Your task to perform on an android device: turn on translation in the chrome app Image 0: 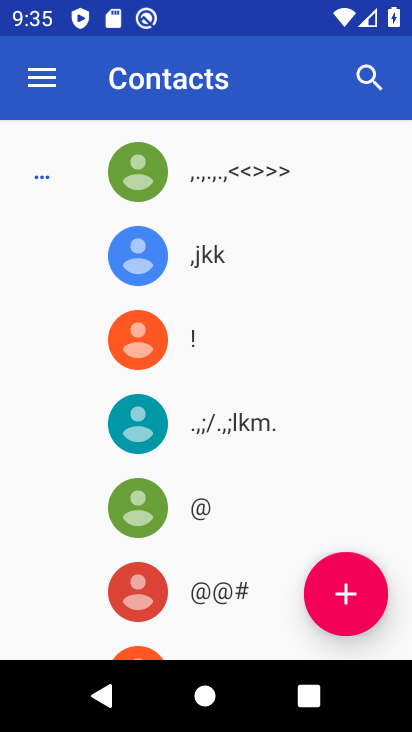
Step 0: press home button
Your task to perform on an android device: turn on translation in the chrome app Image 1: 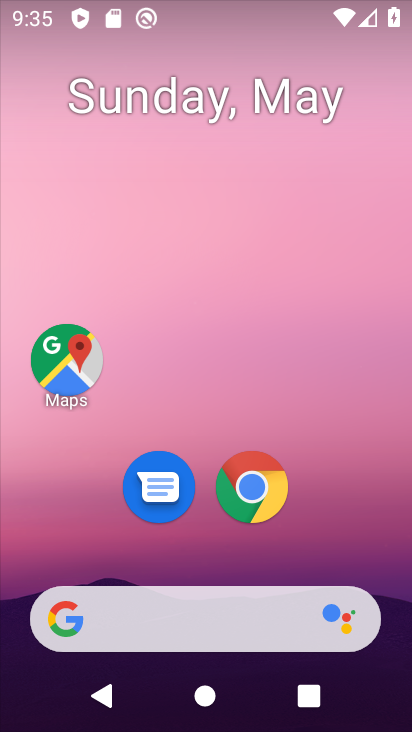
Step 1: drag from (378, 546) to (381, 114)
Your task to perform on an android device: turn on translation in the chrome app Image 2: 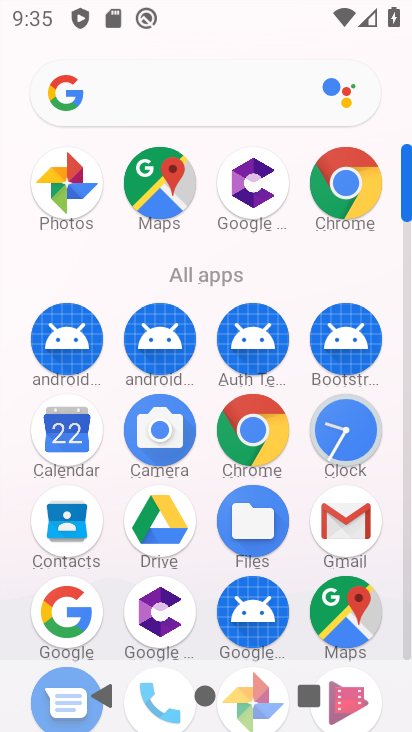
Step 2: click (337, 178)
Your task to perform on an android device: turn on translation in the chrome app Image 3: 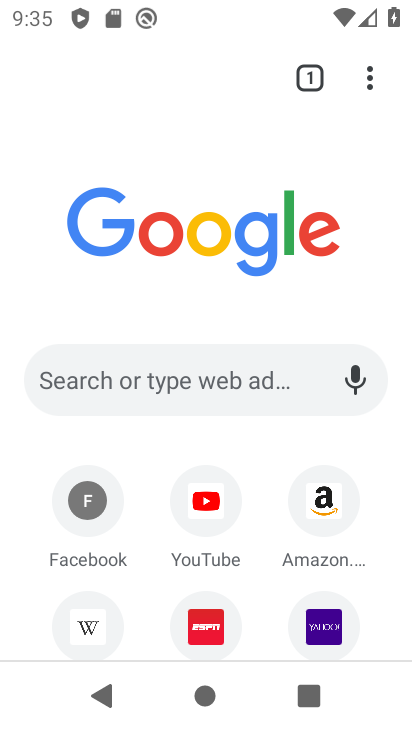
Step 3: click (370, 84)
Your task to perform on an android device: turn on translation in the chrome app Image 4: 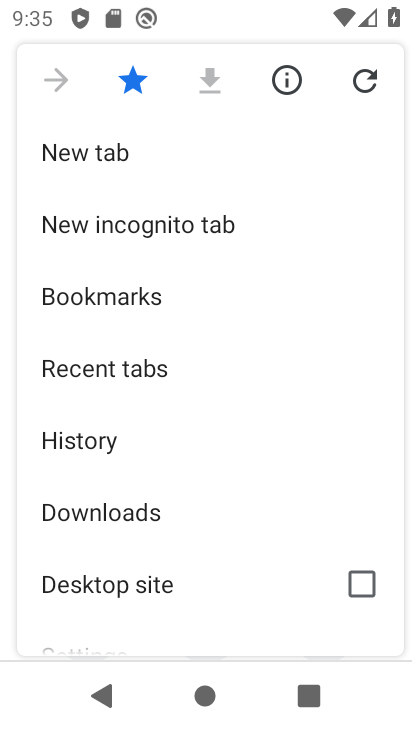
Step 4: drag from (265, 472) to (295, 316)
Your task to perform on an android device: turn on translation in the chrome app Image 5: 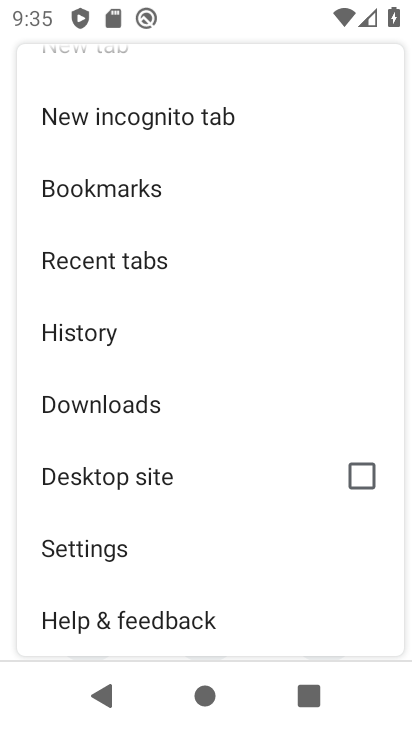
Step 5: click (111, 553)
Your task to perform on an android device: turn on translation in the chrome app Image 6: 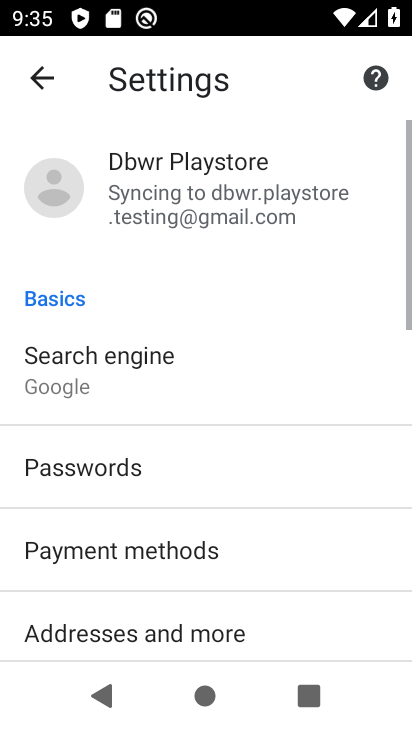
Step 6: drag from (265, 561) to (288, 419)
Your task to perform on an android device: turn on translation in the chrome app Image 7: 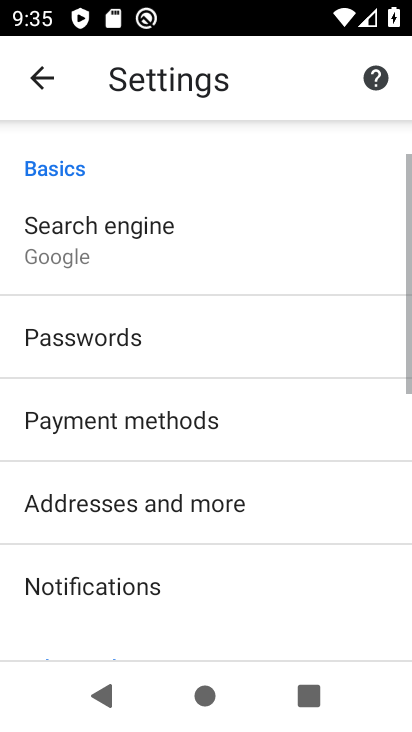
Step 7: drag from (272, 556) to (270, 427)
Your task to perform on an android device: turn on translation in the chrome app Image 8: 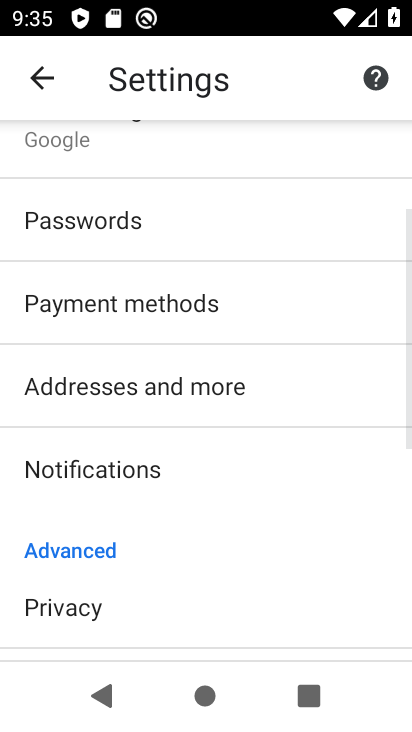
Step 8: drag from (244, 552) to (253, 451)
Your task to perform on an android device: turn on translation in the chrome app Image 9: 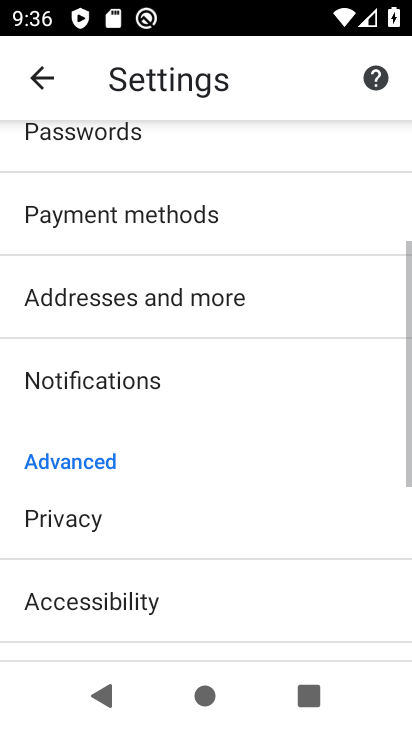
Step 9: drag from (245, 582) to (267, 467)
Your task to perform on an android device: turn on translation in the chrome app Image 10: 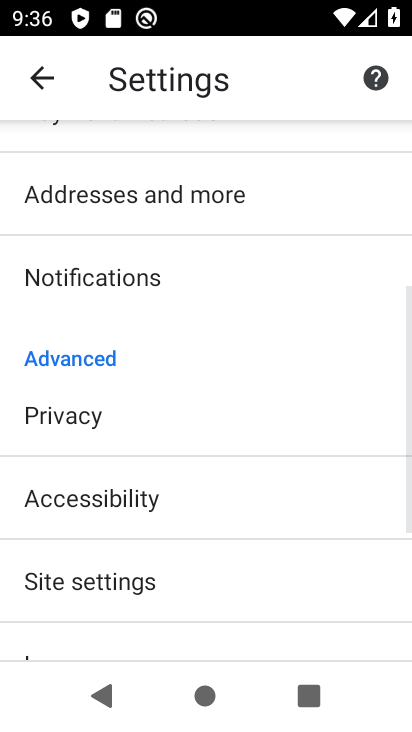
Step 10: drag from (262, 606) to (280, 475)
Your task to perform on an android device: turn on translation in the chrome app Image 11: 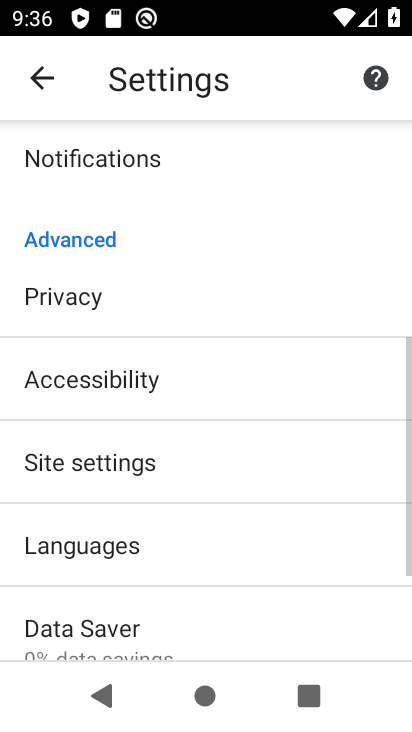
Step 11: drag from (267, 590) to (273, 500)
Your task to perform on an android device: turn on translation in the chrome app Image 12: 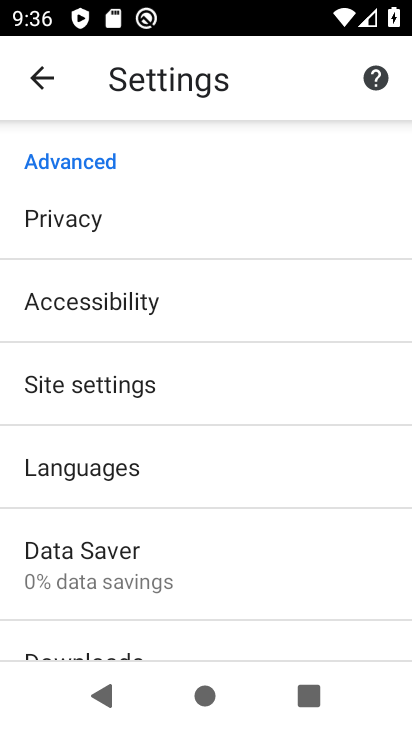
Step 12: click (261, 486)
Your task to perform on an android device: turn on translation in the chrome app Image 13: 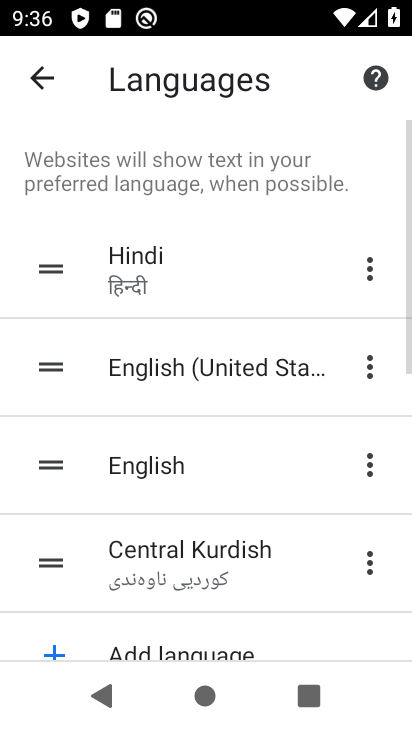
Step 13: drag from (282, 595) to (294, 468)
Your task to perform on an android device: turn on translation in the chrome app Image 14: 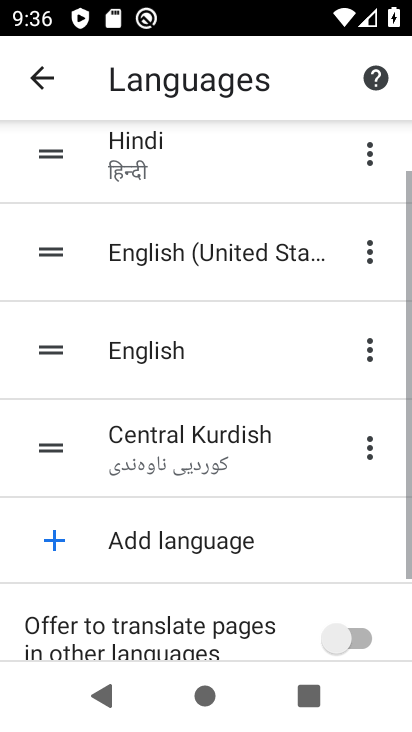
Step 14: drag from (288, 596) to (295, 518)
Your task to perform on an android device: turn on translation in the chrome app Image 15: 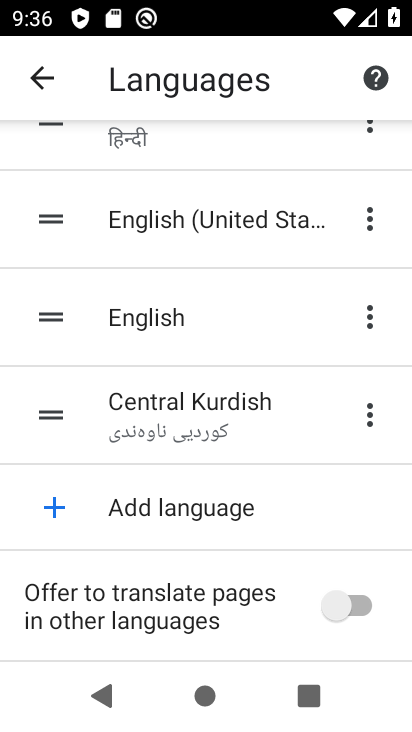
Step 15: click (321, 603)
Your task to perform on an android device: turn on translation in the chrome app Image 16: 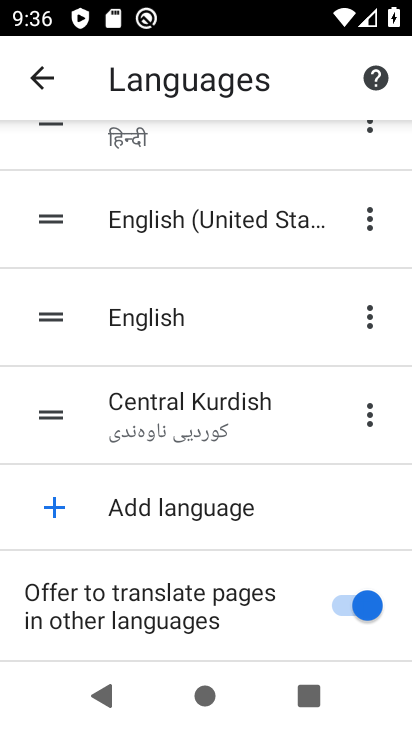
Step 16: task complete